Your task to perform on an android device: Go to ESPN.com Image 0: 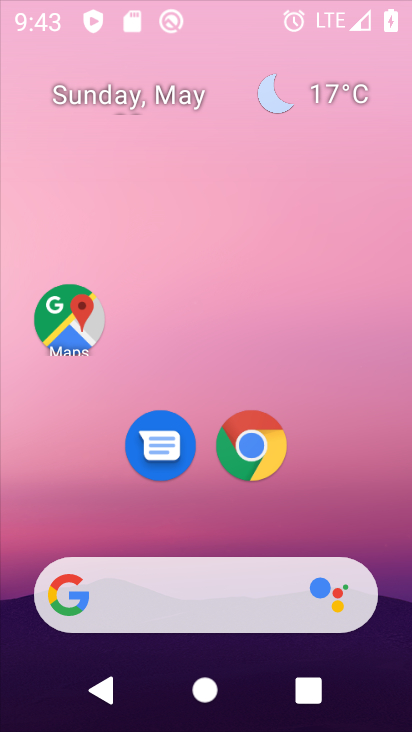
Step 0: click (287, 13)
Your task to perform on an android device: Go to ESPN.com Image 1: 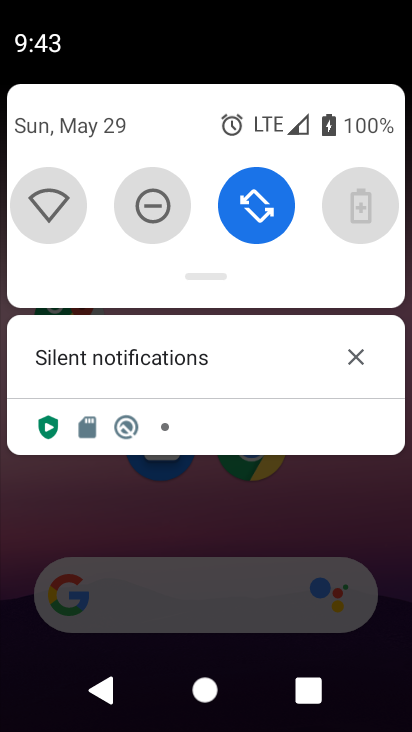
Step 1: drag from (207, 494) to (306, 118)
Your task to perform on an android device: Go to ESPN.com Image 2: 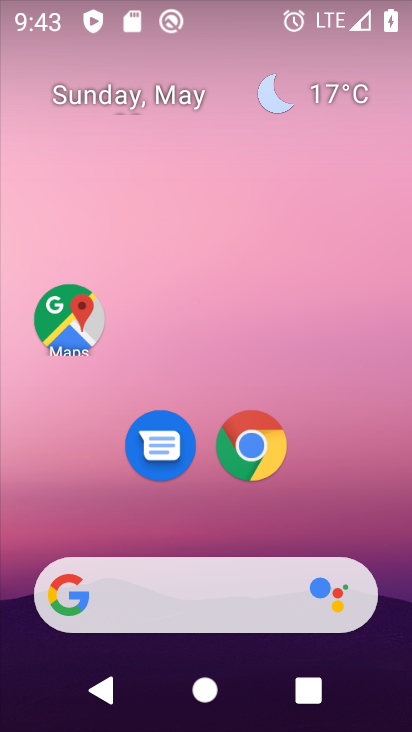
Step 2: drag from (210, 531) to (290, 306)
Your task to perform on an android device: Go to ESPN.com Image 3: 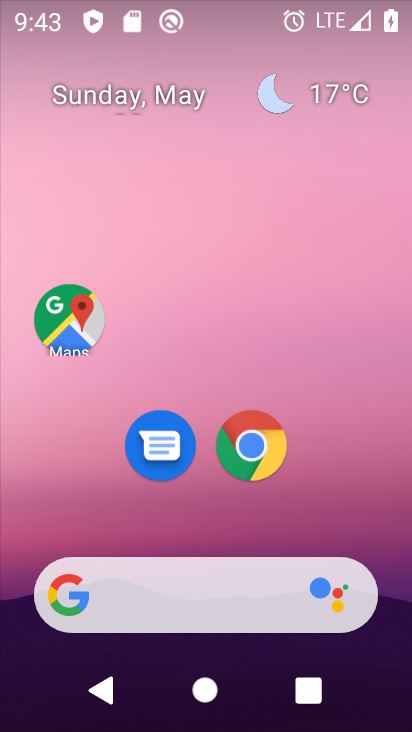
Step 3: drag from (221, 509) to (264, 151)
Your task to perform on an android device: Go to ESPN.com Image 4: 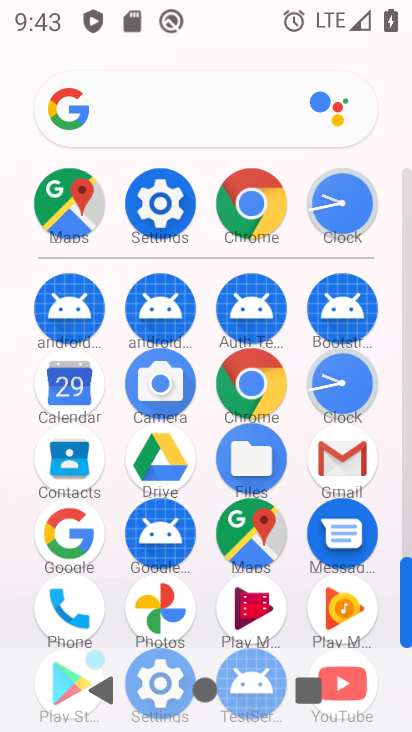
Step 4: click (173, 112)
Your task to perform on an android device: Go to ESPN.com Image 5: 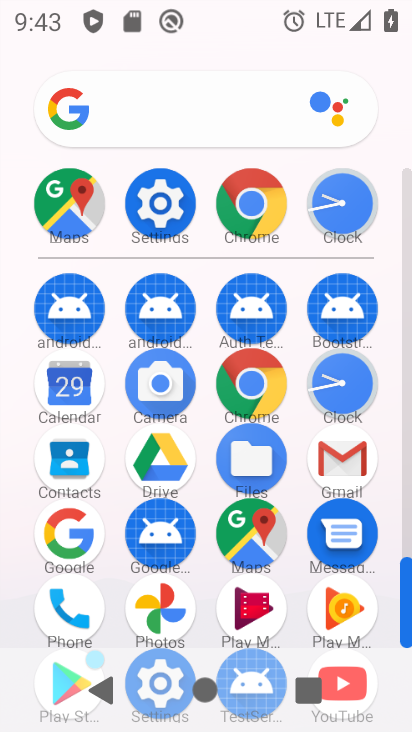
Step 5: click (174, 114)
Your task to perform on an android device: Go to ESPN.com Image 6: 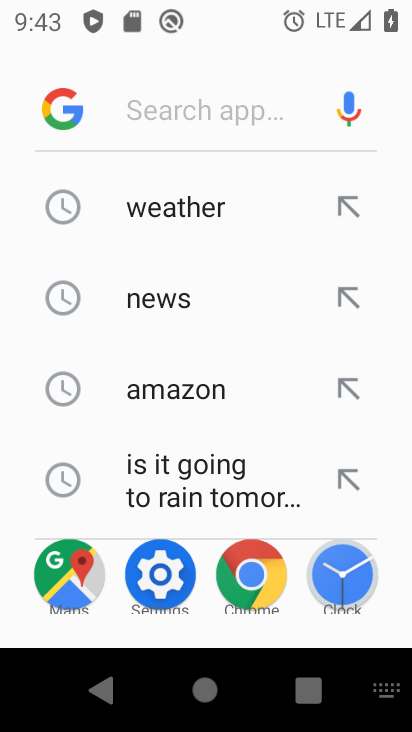
Step 6: type "ESPN.com"
Your task to perform on an android device: Go to ESPN.com Image 7: 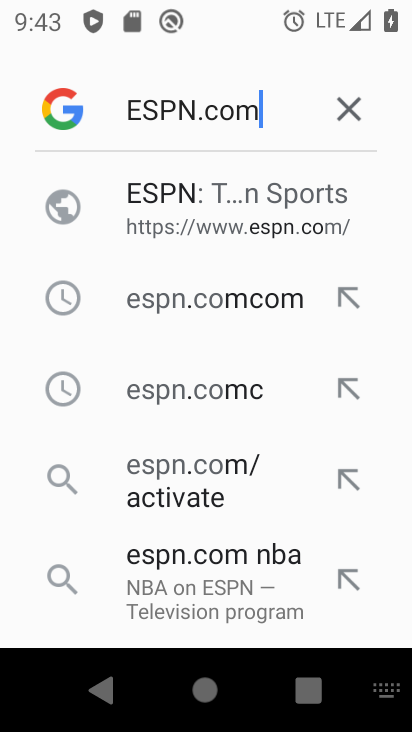
Step 7: type ""
Your task to perform on an android device: Go to ESPN.com Image 8: 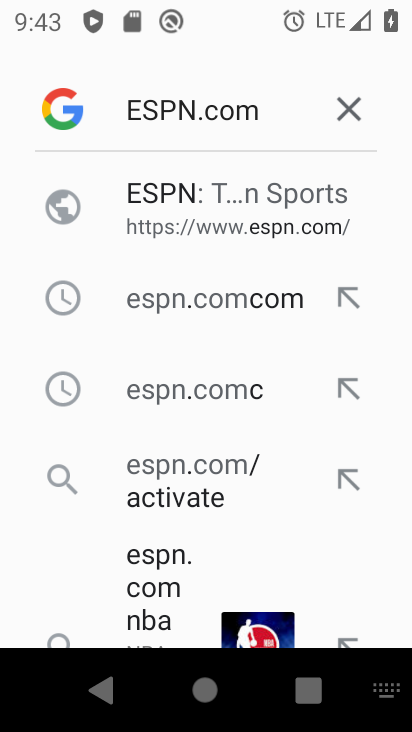
Step 8: click (182, 226)
Your task to perform on an android device: Go to ESPN.com Image 9: 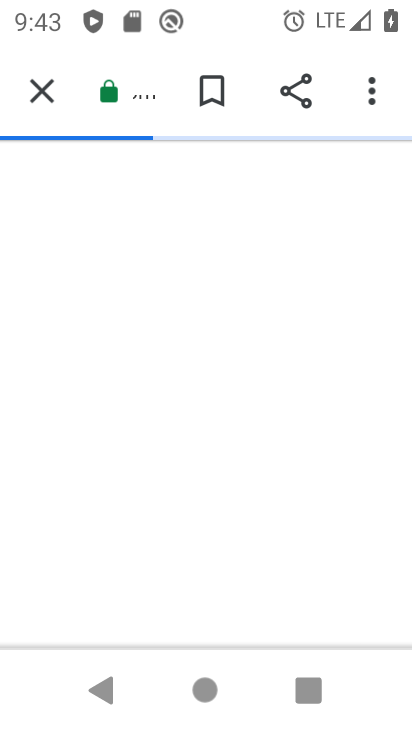
Step 9: task complete